Your task to perform on an android device: toggle sleep mode Image 0: 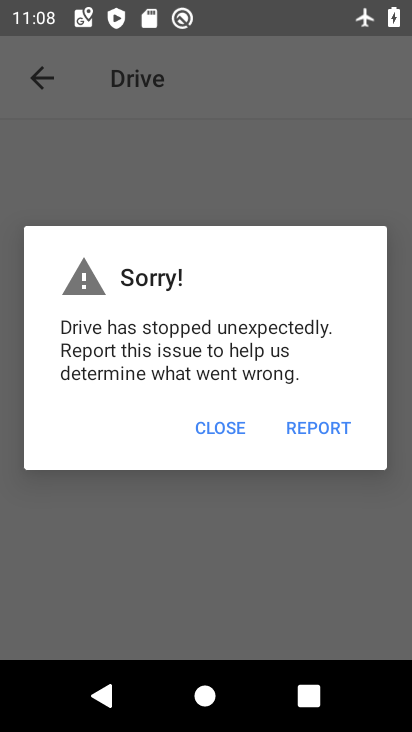
Step 0: press home button
Your task to perform on an android device: toggle sleep mode Image 1: 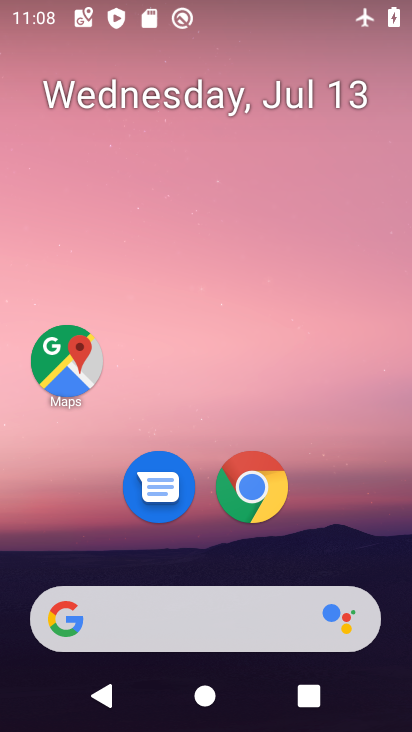
Step 1: drag from (224, 579) to (151, 17)
Your task to perform on an android device: toggle sleep mode Image 2: 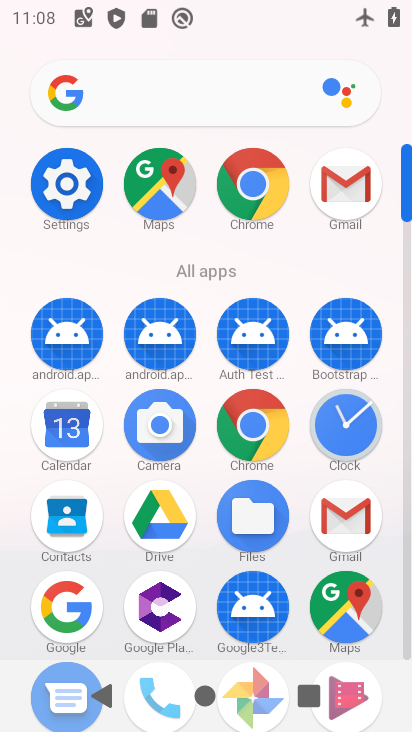
Step 2: click (54, 173)
Your task to perform on an android device: toggle sleep mode Image 3: 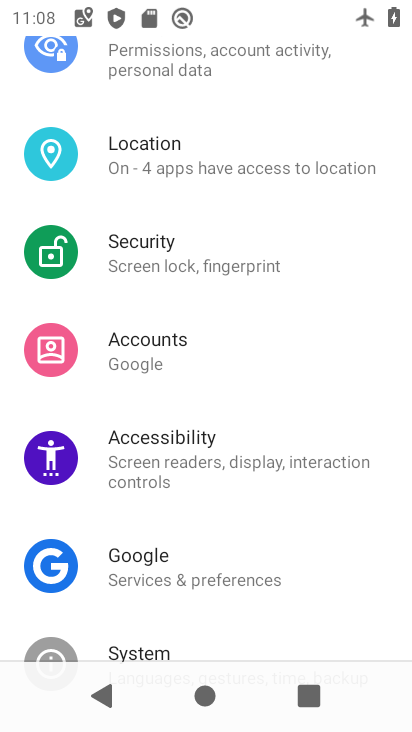
Step 3: drag from (125, 155) to (113, 538)
Your task to perform on an android device: toggle sleep mode Image 4: 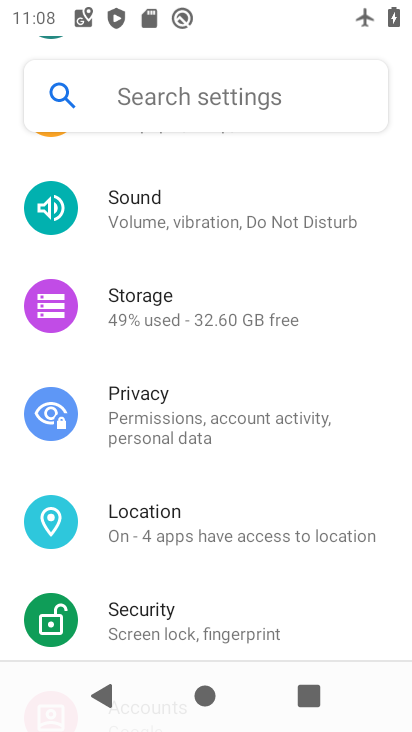
Step 4: drag from (155, 200) to (184, 613)
Your task to perform on an android device: toggle sleep mode Image 5: 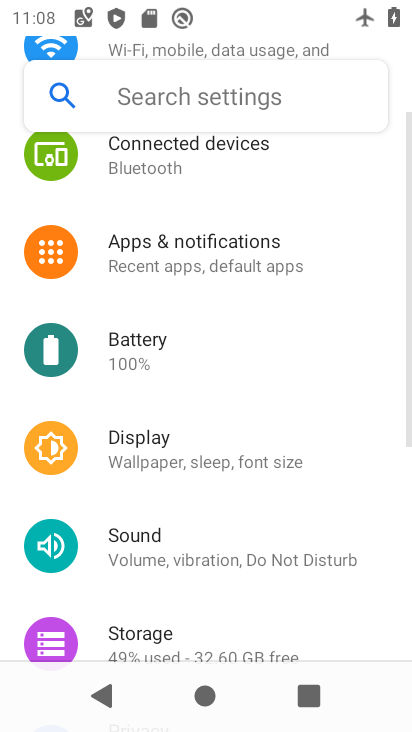
Step 5: drag from (154, 272) to (162, 541)
Your task to perform on an android device: toggle sleep mode Image 6: 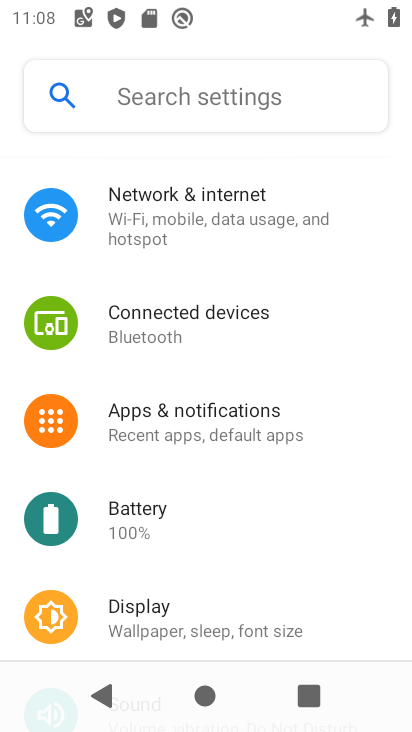
Step 6: click (154, 626)
Your task to perform on an android device: toggle sleep mode Image 7: 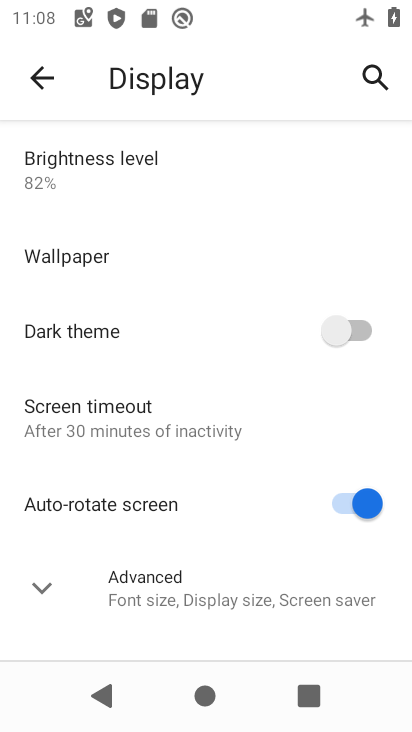
Step 7: click (169, 584)
Your task to perform on an android device: toggle sleep mode Image 8: 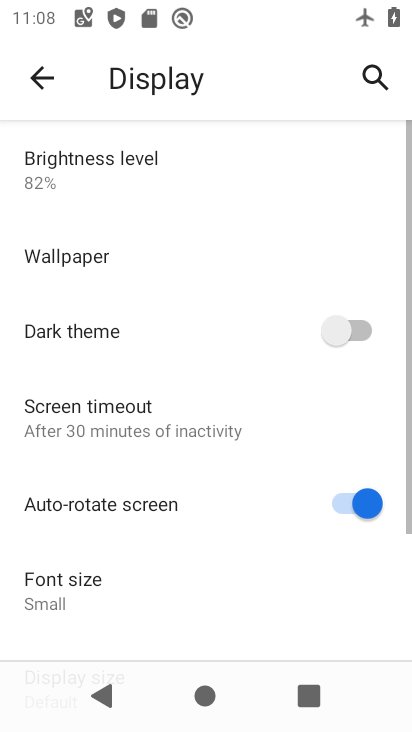
Step 8: task complete